Your task to perform on an android device: Go to accessibility settings Image 0: 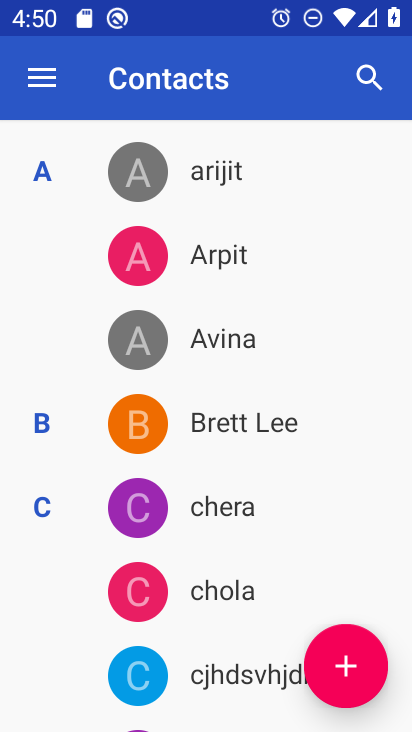
Step 0: press back button
Your task to perform on an android device: Go to accessibility settings Image 1: 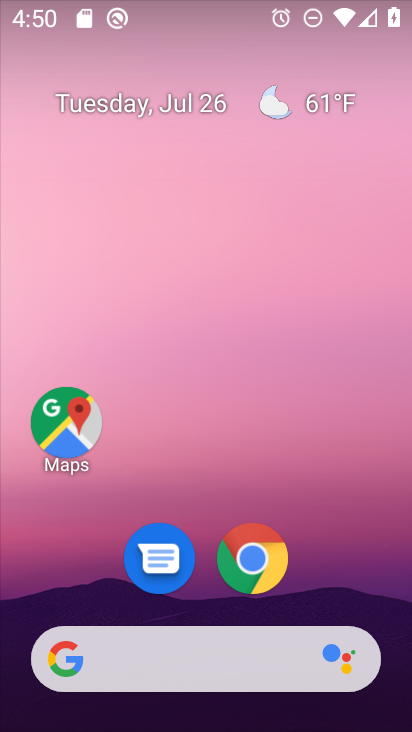
Step 1: drag from (90, 572) to (198, 28)
Your task to perform on an android device: Go to accessibility settings Image 2: 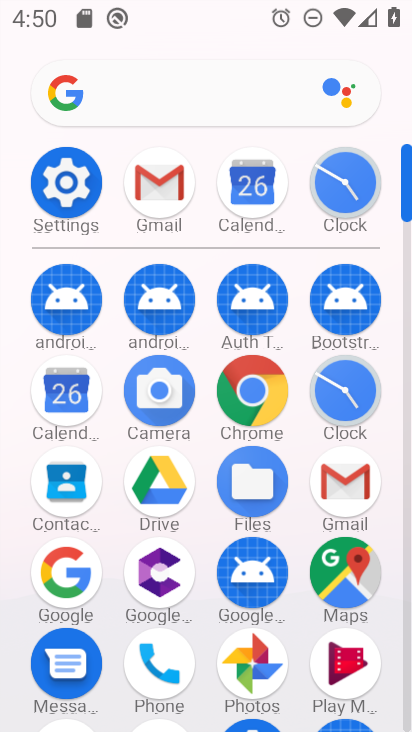
Step 2: click (86, 180)
Your task to perform on an android device: Go to accessibility settings Image 3: 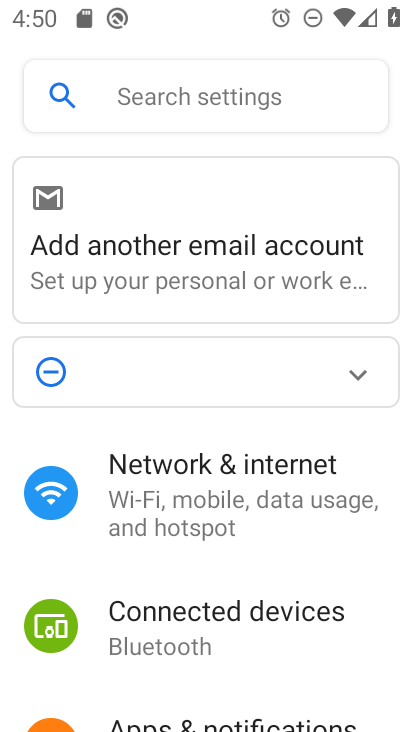
Step 3: drag from (178, 662) to (232, 73)
Your task to perform on an android device: Go to accessibility settings Image 4: 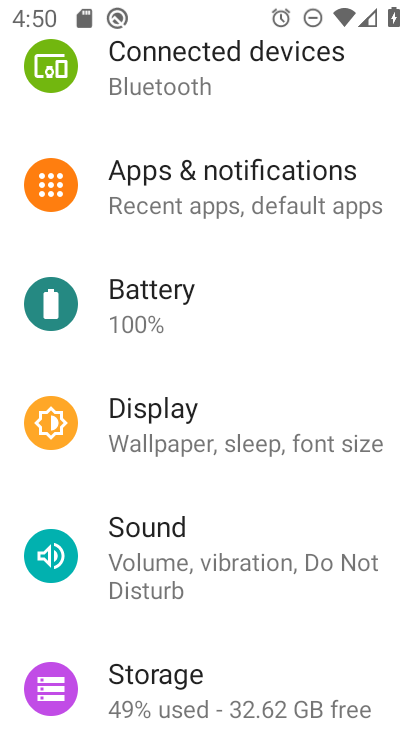
Step 4: drag from (137, 615) to (208, 42)
Your task to perform on an android device: Go to accessibility settings Image 5: 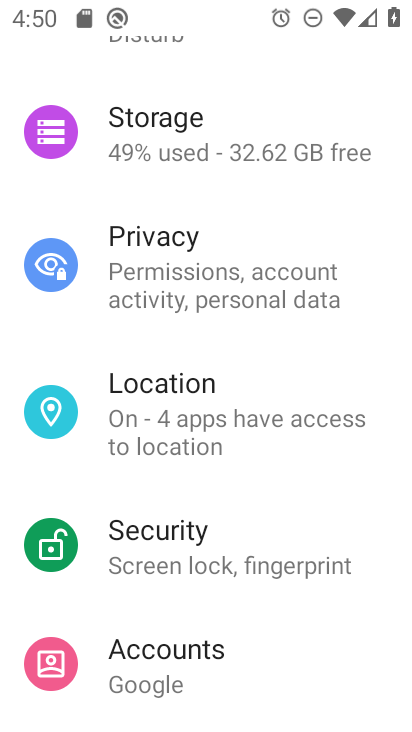
Step 5: drag from (135, 657) to (244, 31)
Your task to perform on an android device: Go to accessibility settings Image 6: 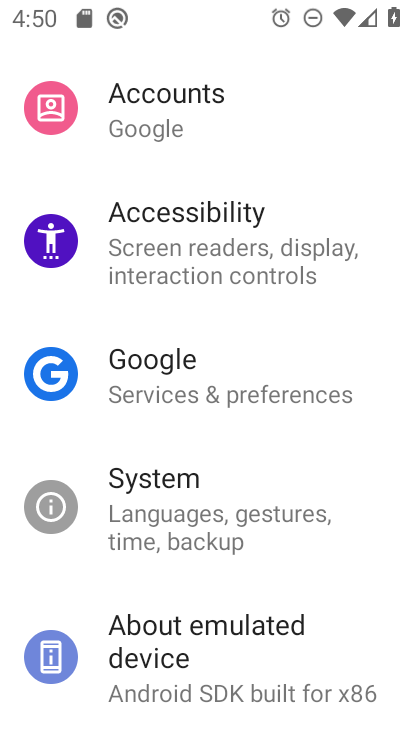
Step 6: click (190, 246)
Your task to perform on an android device: Go to accessibility settings Image 7: 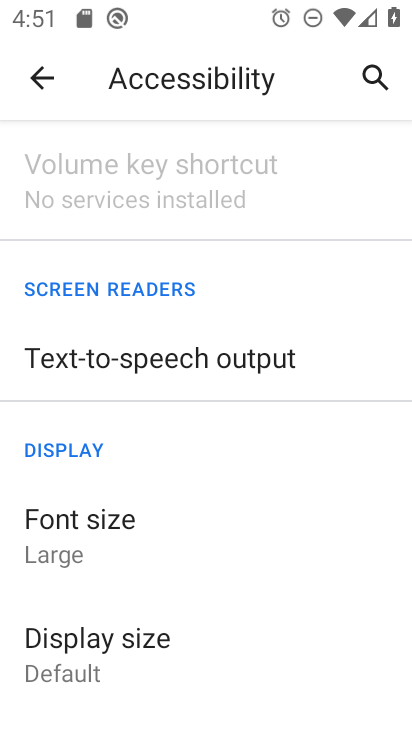
Step 7: task complete